Your task to perform on an android device: Open Android settings Image 0: 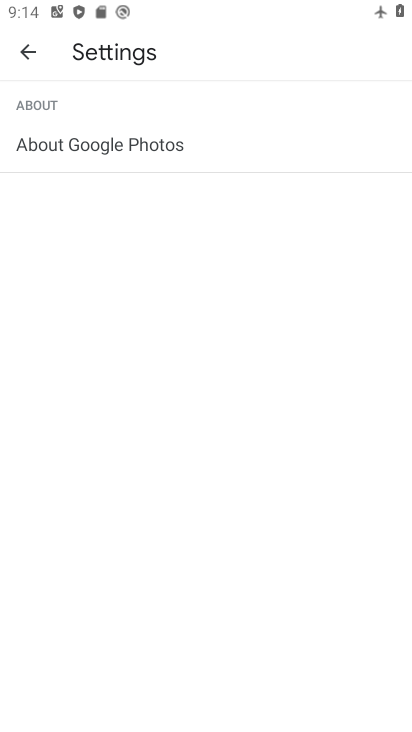
Step 0: press home button
Your task to perform on an android device: Open Android settings Image 1: 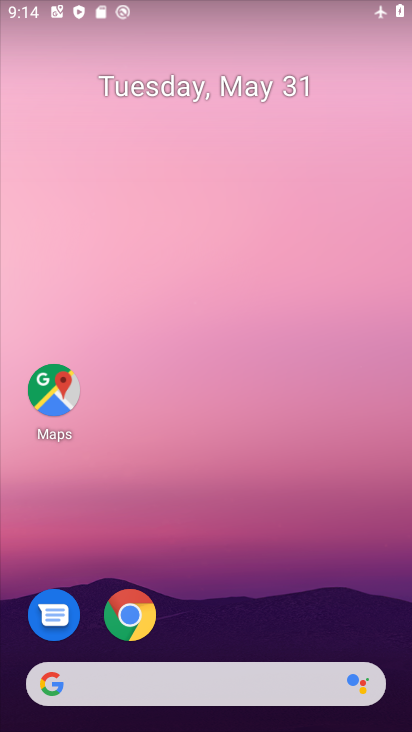
Step 1: drag from (354, 610) to (320, 164)
Your task to perform on an android device: Open Android settings Image 2: 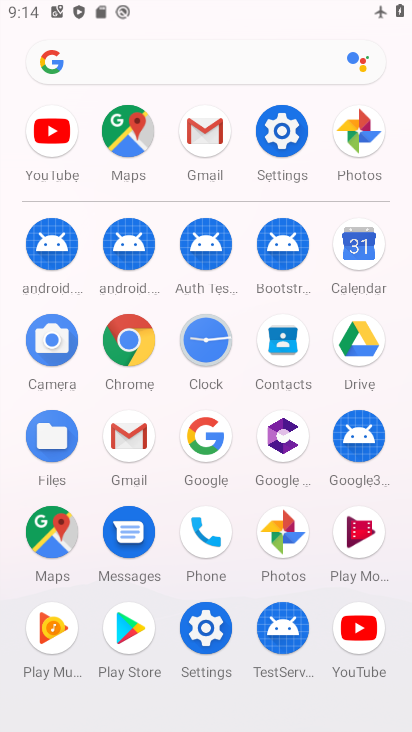
Step 2: click (208, 628)
Your task to perform on an android device: Open Android settings Image 3: 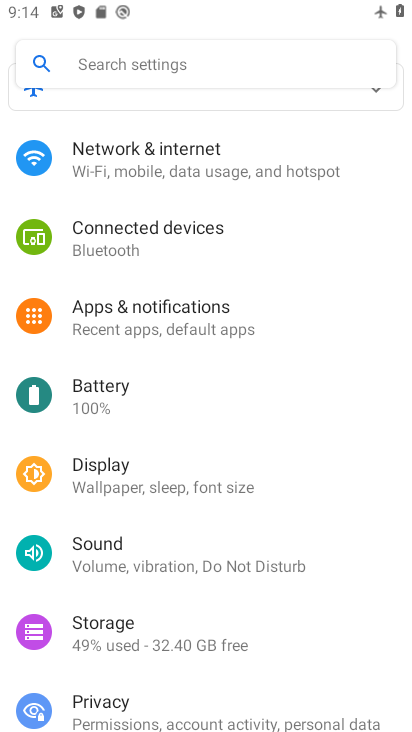
Step 3: drag from (306, 572) to (296, 216)
Your task to perform on an android device: Open Android settings Image 4: 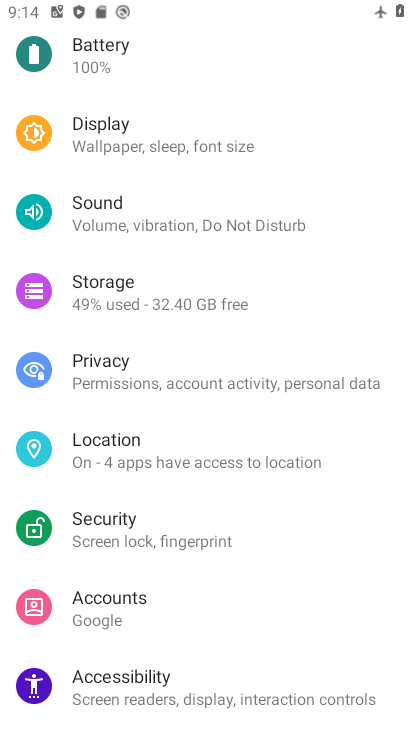
Step 4: drag from (280, 531) to (311, 305)
Your task to perform on an android device: Open Android settings Image 5: 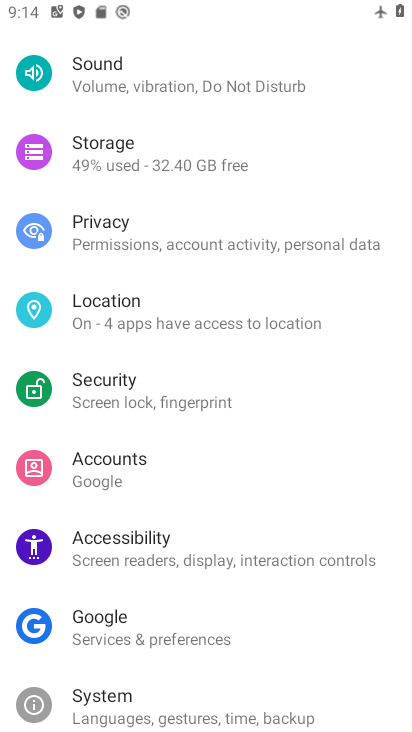
Step 5: drag from (280, 607) to (306, 348)
Your task to perform on an android device: Open Android settings Image 6: 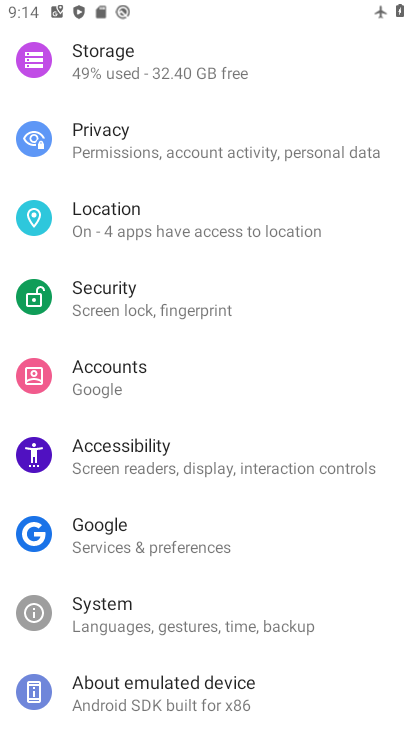
Step 6: click (113, 680)
Your task to perform on an android device: Open Android settings Image 7: 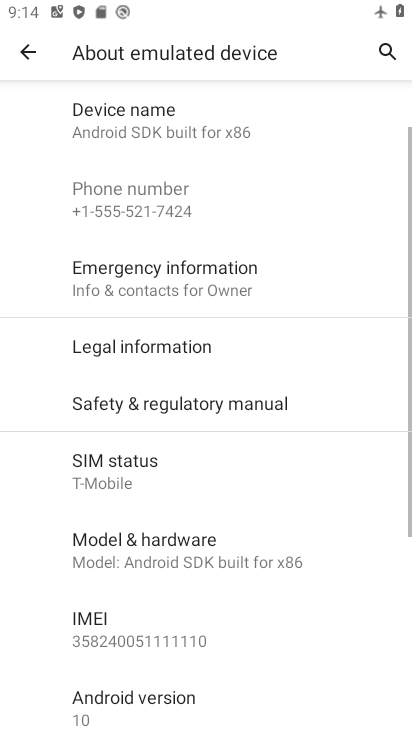
Step 7: task complete